Your task to perform on an android device: Do I have any events today? Image 0: 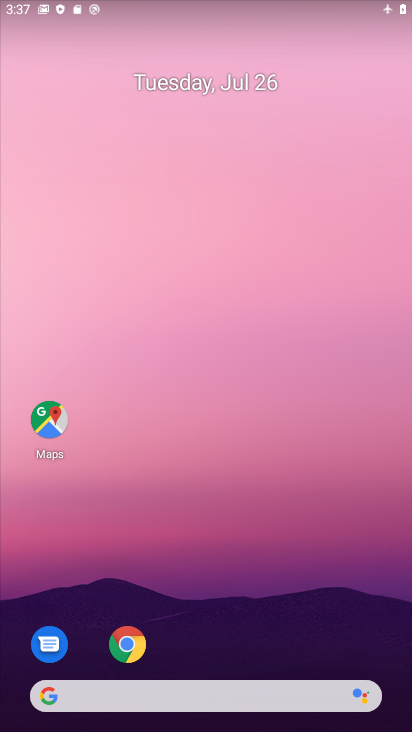
Step 0: drag from (344, 623) to (347, 101)
Your task to perform on an android device: Do I have any events today? Image 1: 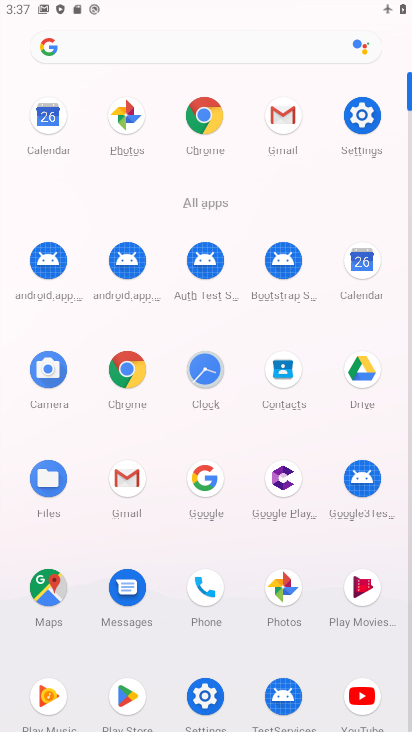
Step 1: click (358, 261)
Your task to perform on an android device: Do I have any events today? Image 2: 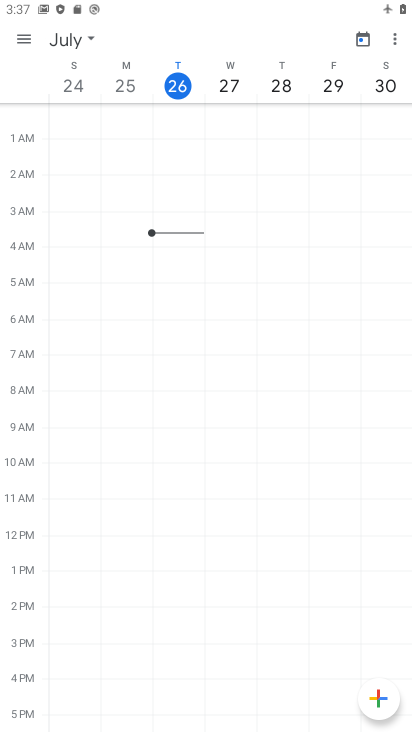
Step 2: click (22, 39)
Your task to perform on an android device: Do I have any events today? Image 3: 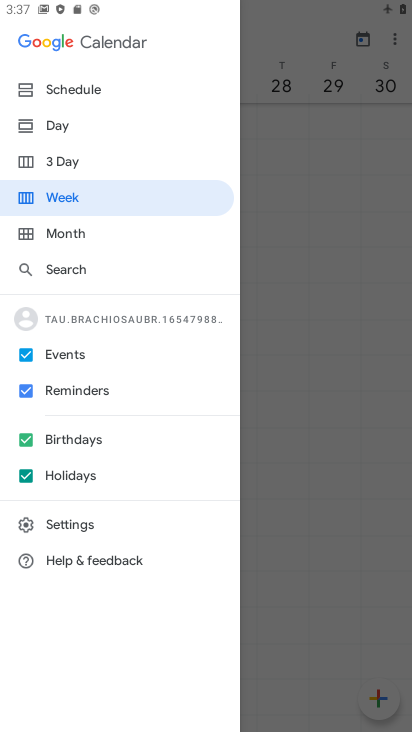
Step 3: click (59, 120)
Your task to perform on an android device: Do I have any events today? Image 4: 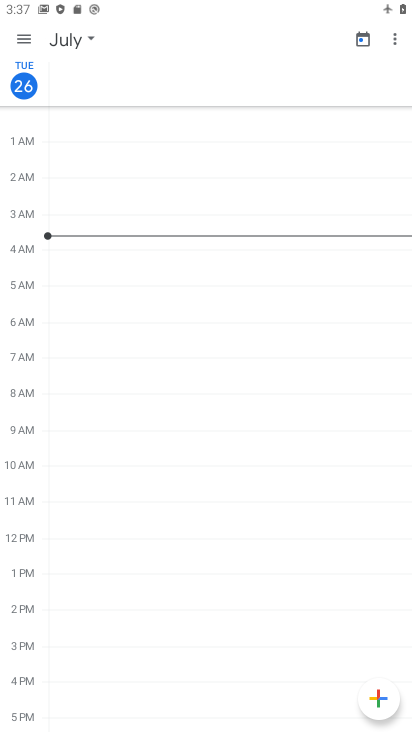
Step 4: click (92, 39)
Your task to perform on an android device: Do I have any events today? Image 5: 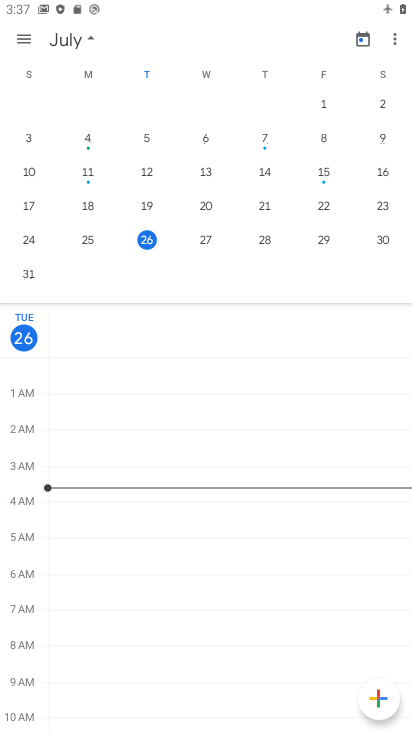
Step 5: click (144, 238)
Your task to perform on an android device: Do I have any events today? Image 6: 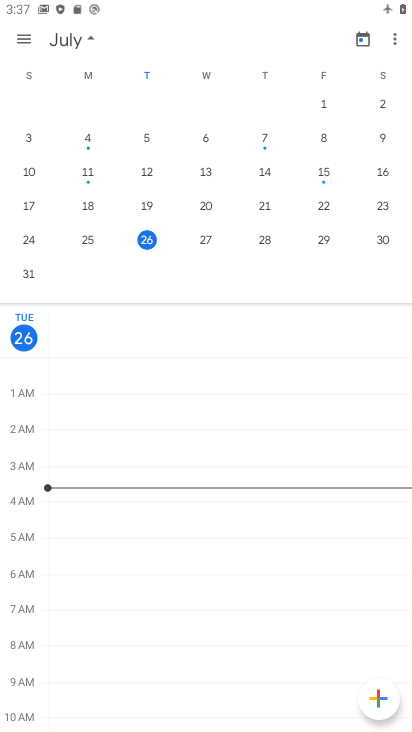
Step 6: task complete